Your task to perform on an android device: turn on the 12-hour format for clock Image 0: 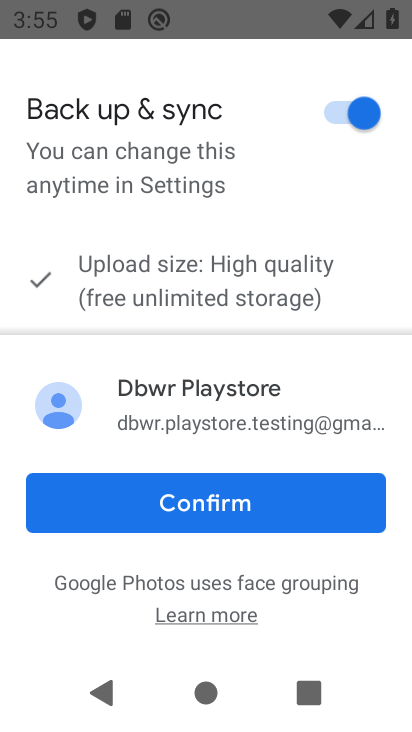
Step 0: click (184, 506)
Your task to perform on an android device: turn on the 12-hour format for clock Image 1: 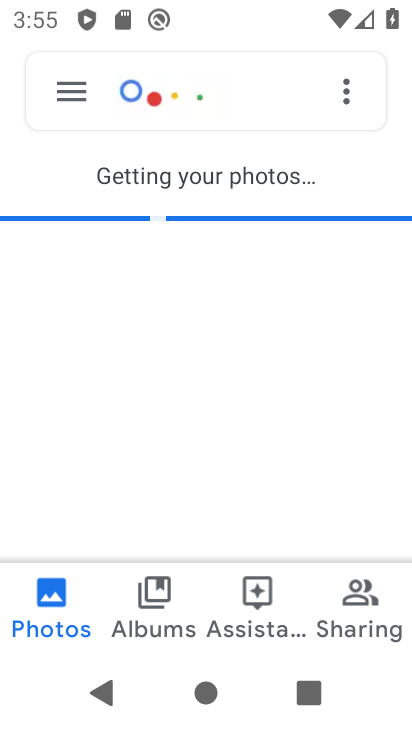
Step 1: press home button
Your task to perform on an android device: turn on the 12-hour format for clock Image 2: 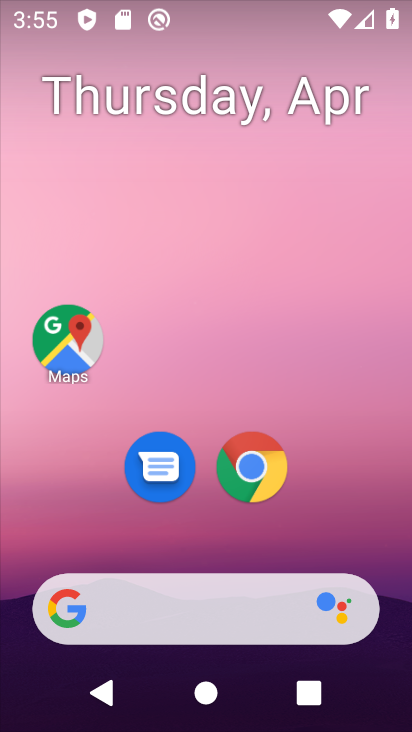
Step 2: drag from (247, 379) to (401, 442)
Your task to perform on an android device: turn on the 12-hour format for clock Image 3: 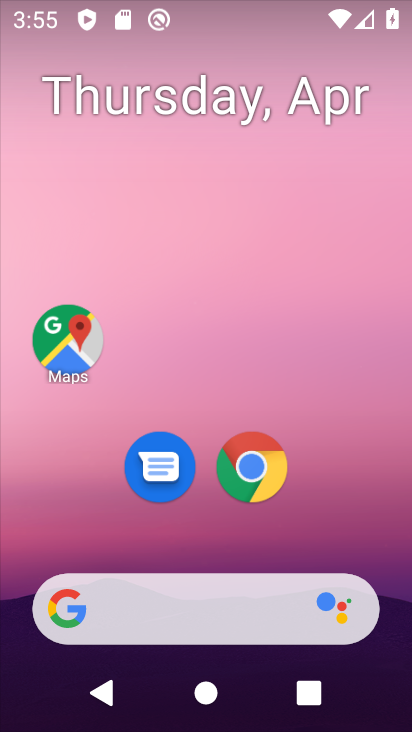
Step 3: drag from (239, 558) to (368, 23)
Your task to perform on an android device: turn on the 12-hour format for clock Image 4: 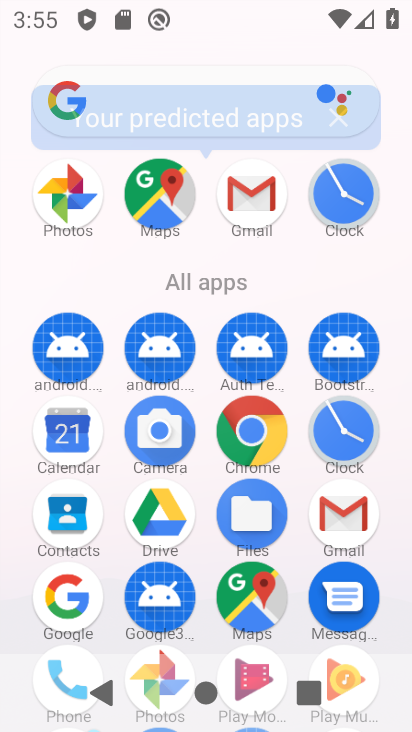
Step 4: drag from (302, 515) to (340, 156)
Your task to perform on an android device: turn on the 12-hour format for clock Image 5: 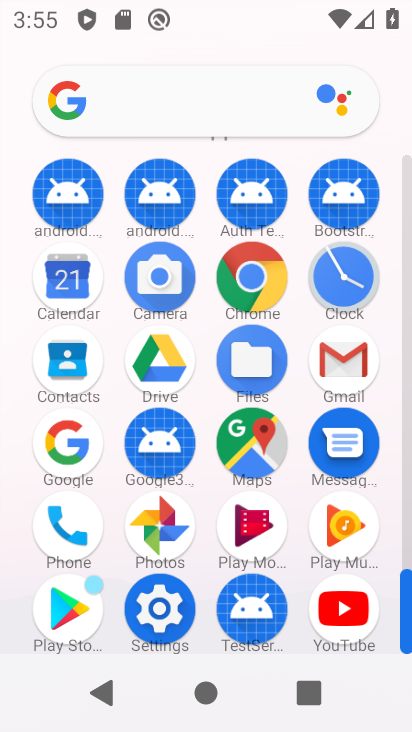
Step 5: click (153, 615)
Your task to perform on an android device: turn on the 12-hour format for clock Image 6: 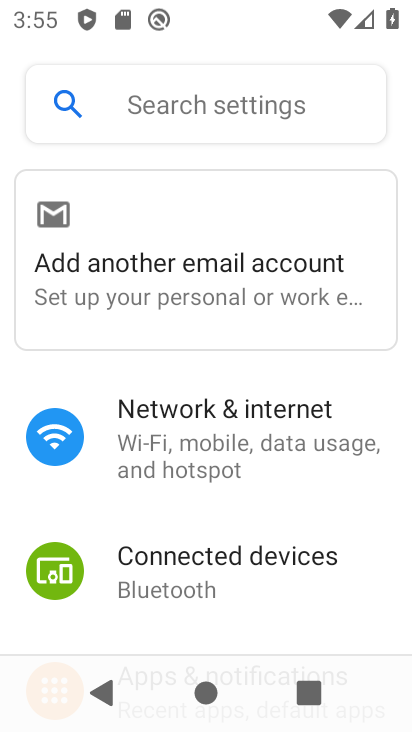
Step 6: drag from (213, 457) to (308, 121)
Your task to perform on an android device: turn on the 12-hour format for clock Image 7: 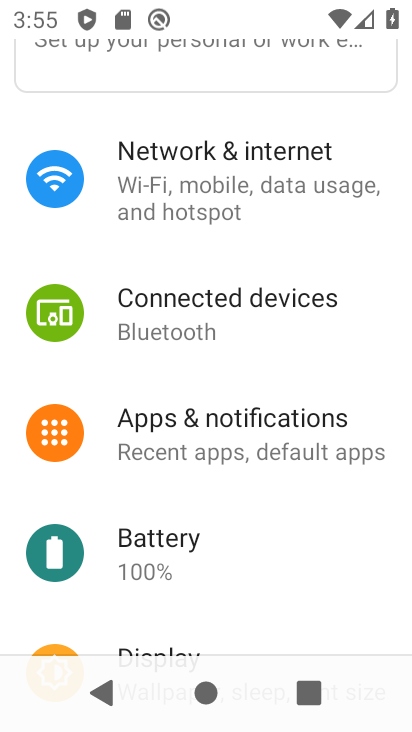
Step 7: drag from (197, 585) to (310, 142)
Your task to perform on an android device: turn on the 12-hour format for clock Image 8: 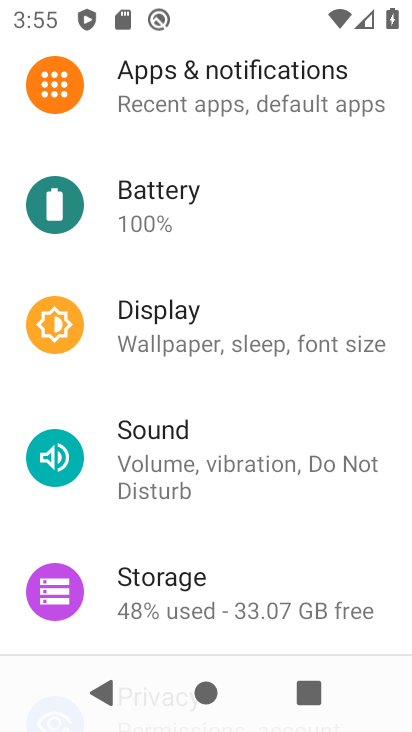
Step 8: drag from (173, 583) to (275, 226)
Your task to perform on an android device: turn on the 12-hour format for clock Image 9: 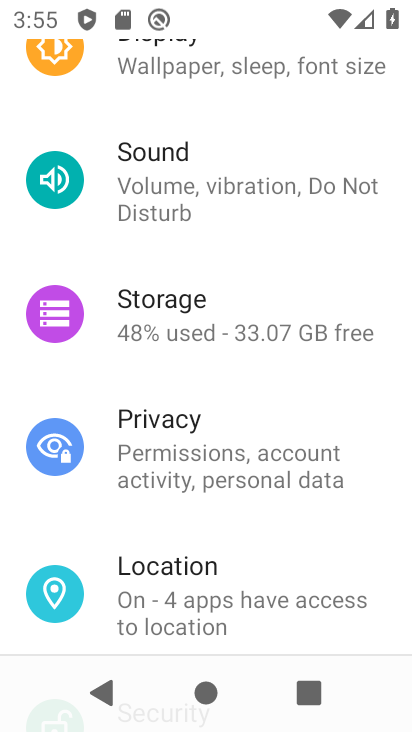
Step 9: drag from (224, 544) to (306, 237)
Your task to perform on an android device: turn on the 12-hour format for clock Image 10: 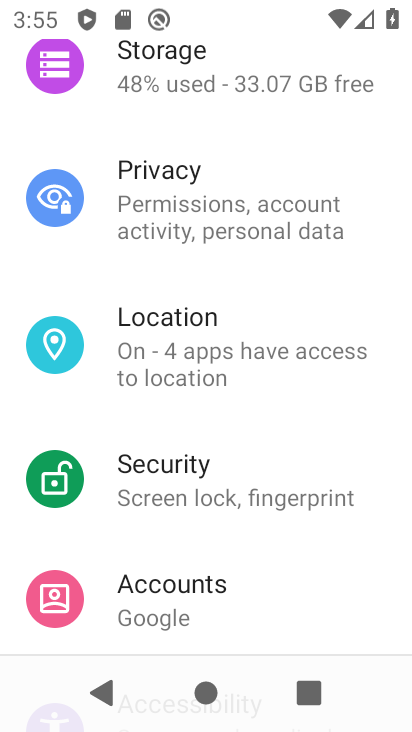
Step 10: drag from (172, 590) to (284, 165)
Your task to perform on an android device: turn on the 12-hour format for clock Image 11: 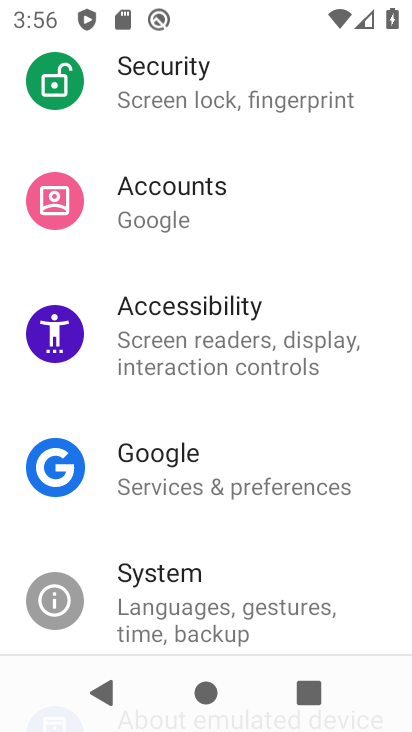
Step 11: click (205, 608)
Your task to perform on an android device: turn on the 12-hour format for clock Image 12: 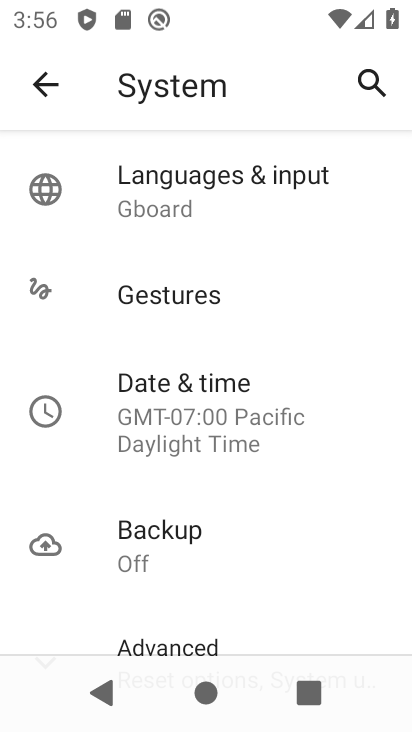
Step 12: click (192, 417)
Your task to perform on an android device: turn on the 12-hour format for clock Image 13: 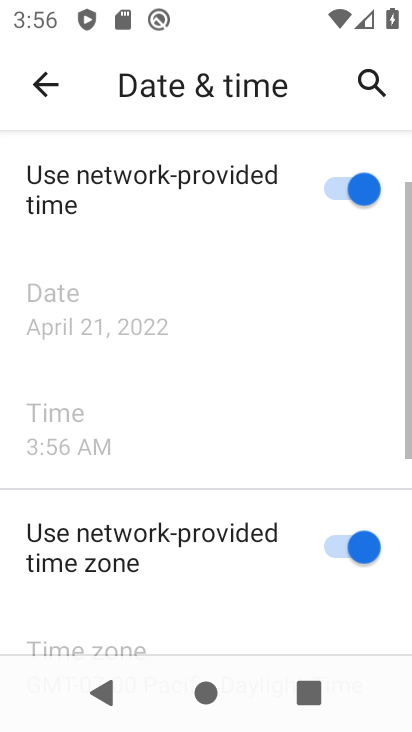
Step 13: task complete